Your task to perform on an android device: uninstall "Facebook Lite" Image 0: 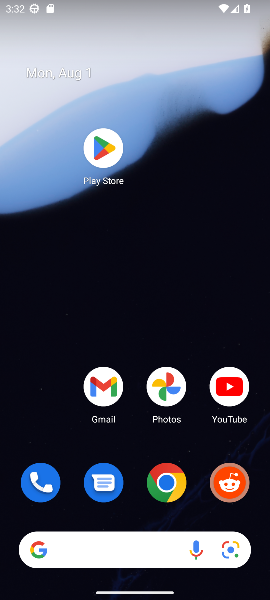
Step 0: click (103, 145)
Your task to perform on an android device: uninstall "Facebook Lite" Image 1: 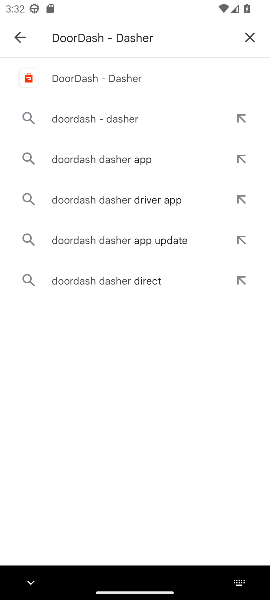
Step 1: click (247, 33)
Your task to perform on an android device: uninstall "Facebook Lite" Image 2: 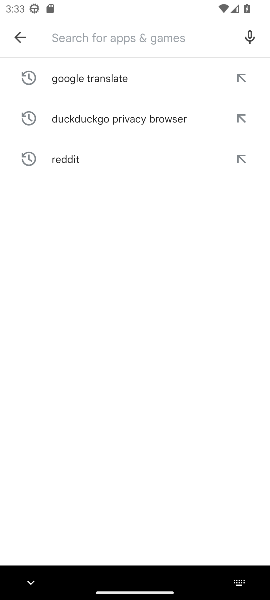
Step 2: type "Facebook Lite"
Your task to perform on an android device: uninstall "Facebook Lite" Image 3: 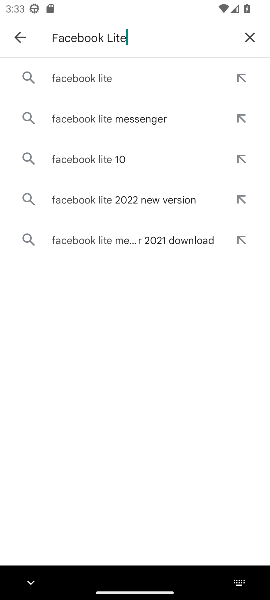
Step 3: click (101, 78)
Your task to perform on an android device: uninstall "Facebook Lite" Image 4: 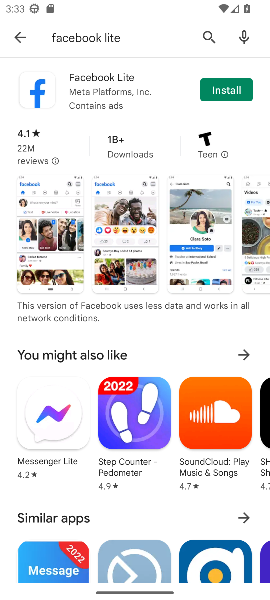
Step 4: task complete